Your task to perform on an android device: turn off picture-in-picture Image 0: 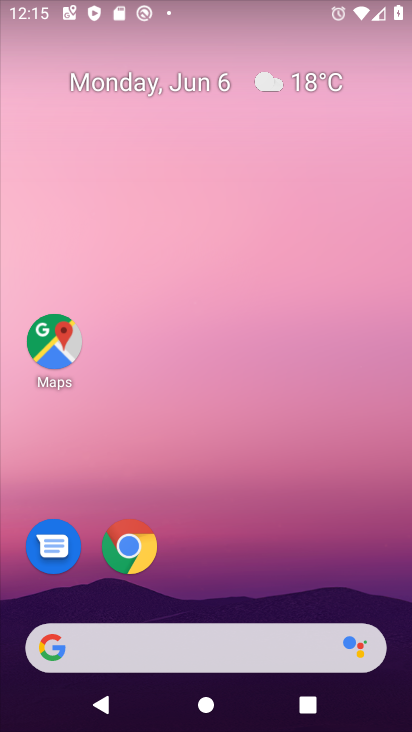
Step 0: click (142, 566)
Your task to perform on an android device: turn off picture-in-picture Image 1: 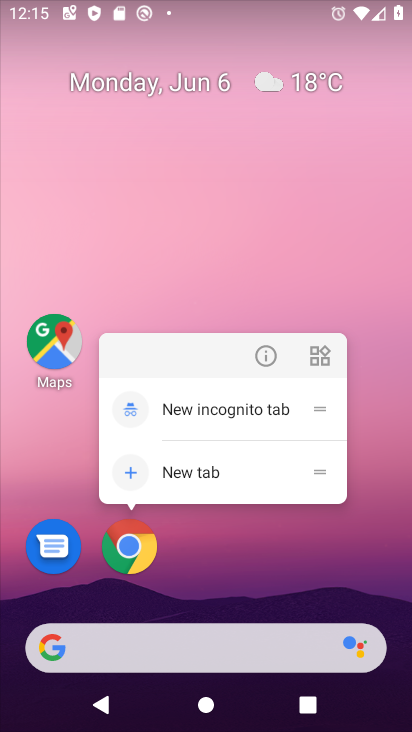
Step 1: click (256, 355)
Your task to perform on an android device: turn off picture-in-picture Image 2: 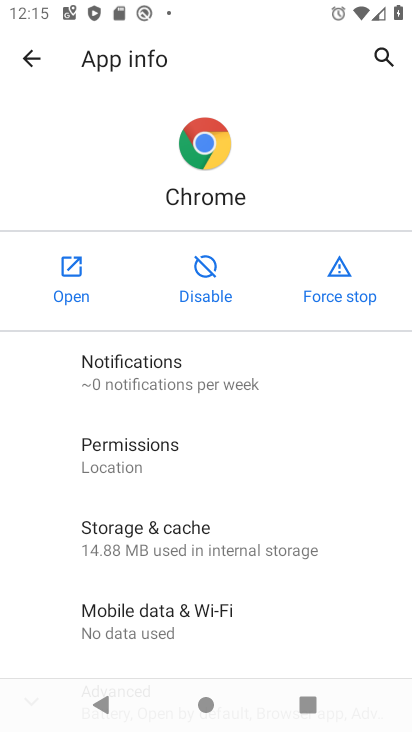
Step 2: drag from (257, 619) to (231, 258)
Your task to perform on an android device: turn off picture-in-picture Image 3: 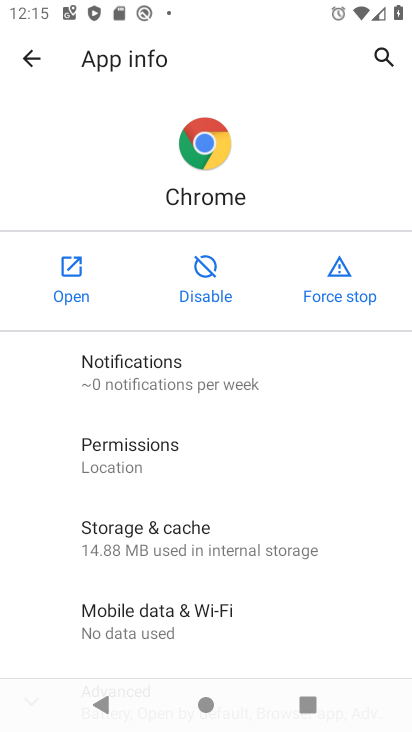
Step 3: drag from (243, 629) to (228, 272)
Your task to perform on an android device: turn off picture-in-picture Image 4: 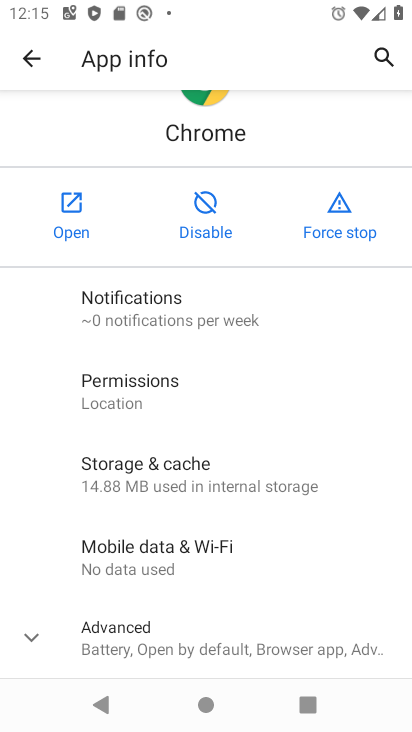
Step 4: click (246, 657)
Your task to perform on an android device: turn off picture-in-picture Image 5: 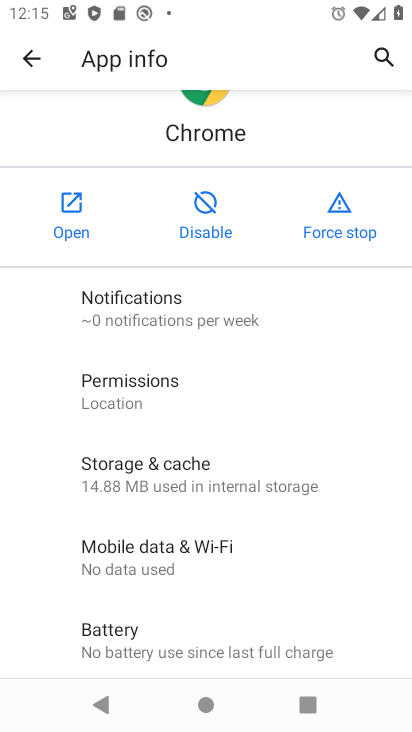
Step 5: drag from (183, 398) to (209, 232)
Your task to perform on an android device: turn off picture-in-picture Image 6: 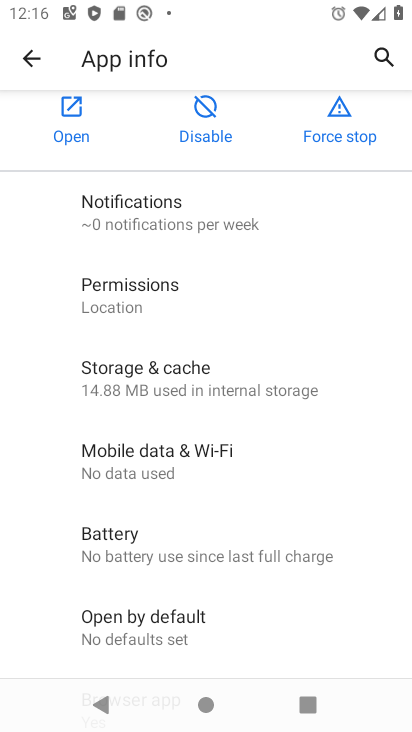
Step 6: drag from (246, 542) to (236, 205)
Your task to perform on an android device: turn off picture-in-picture Image 7: 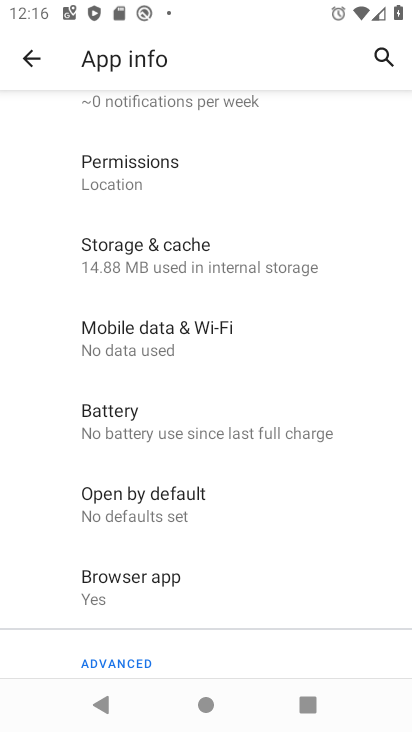
Step 7: drag from (178, 609) to (204, 206)
Your task to perform on an android device: turn off picture-in-picture Image 8: 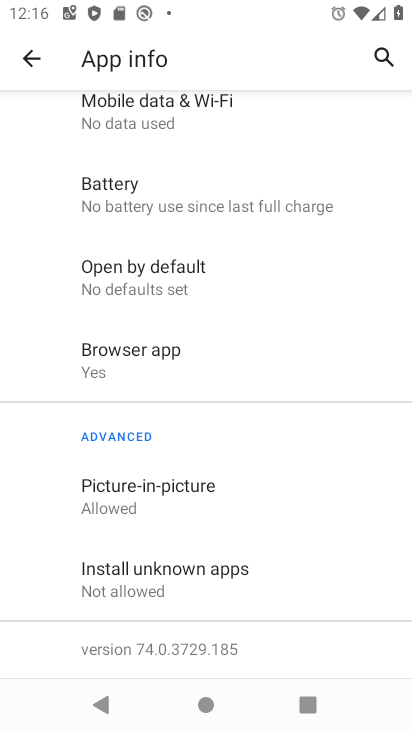
Step 8: click (170, 504)
Your task to perform on an android device: turn off picture-in-picture Image 9: 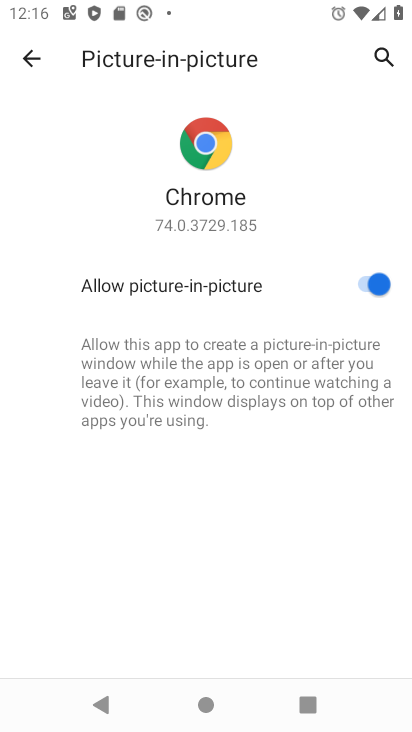
Step 9: click (365, 287)
Your task to perform on an android device: turn off picture-in-picture Image 10: 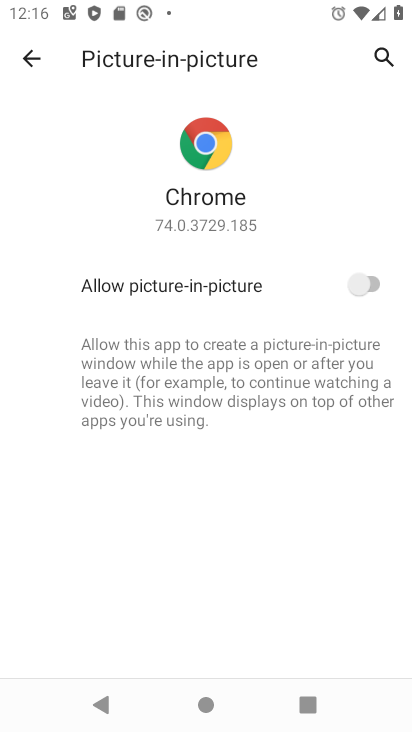
Step 10: task complete